Your task to perform on an android device: Open settings Image 0: 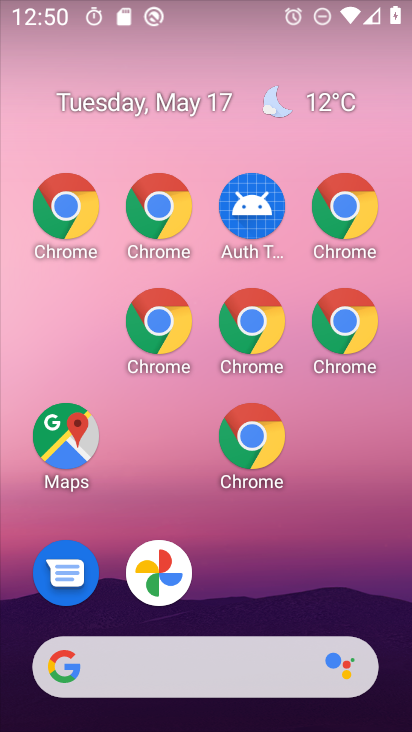
Step 0: drag from (308, 497) to (173, 138)
Your task to perform on an android device: Open settings Image 1: 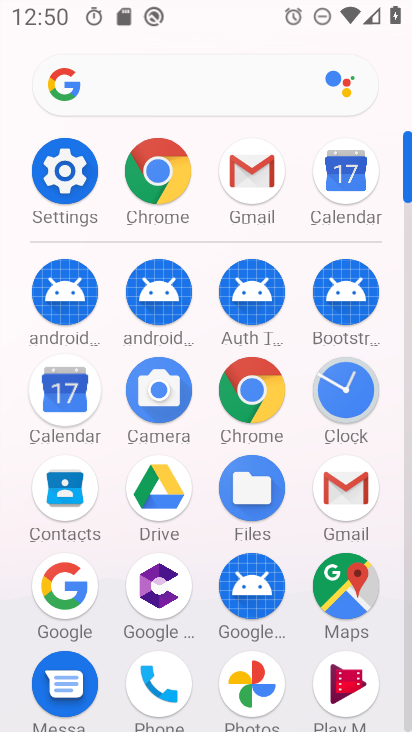
Step 1: click (69, 185)
Your task to perform on an android device: Open settings Image 2: 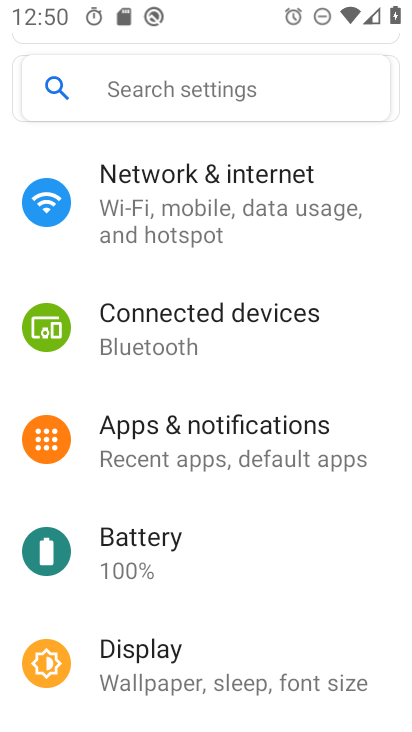
Step 2: drag from (228, 497) to (217, 86)
Your task to perform on an android device: Open settings Image 3: 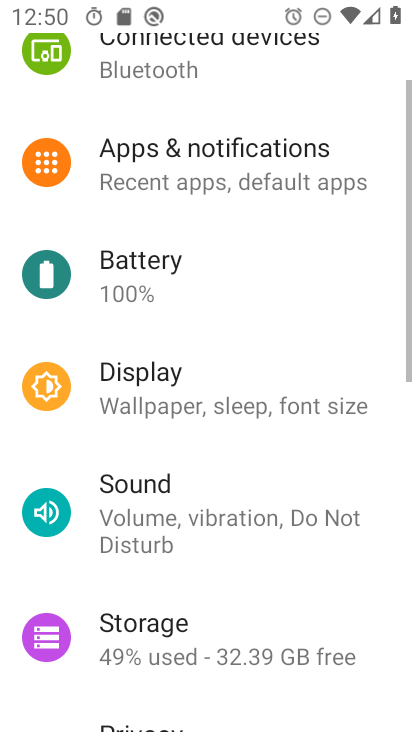
Step 3: click (304, 153)
Your task to perform on an android device: Open settings Image 4: 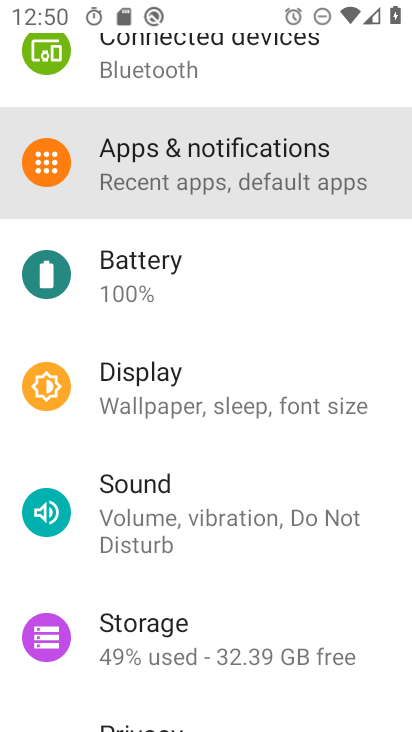
Step 4: task complete